Your task to perform on an android device: Go to privacy settings Image 0: 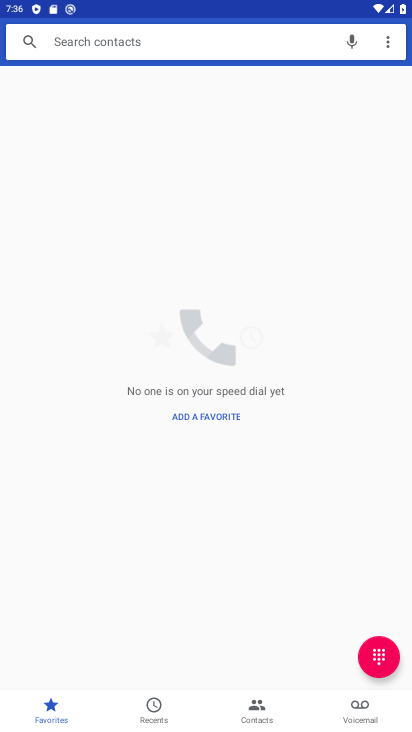
Step 0: press home button
Your task to perform on an android device: Go to privacy settings Image 1: 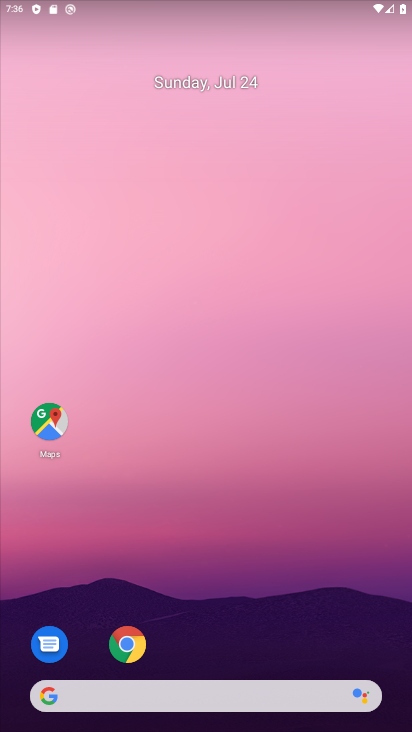
Step 1: drag from (217, 532) to (204, 0)
Your task to perform on an android device: Go to privacy settings Image 2: 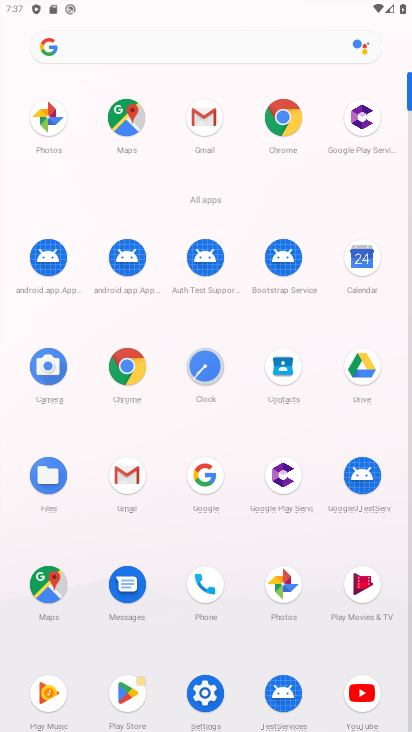
Step 2: click (204, 694)
Your task to perform on an android device: Go to privacy settings Image 3: 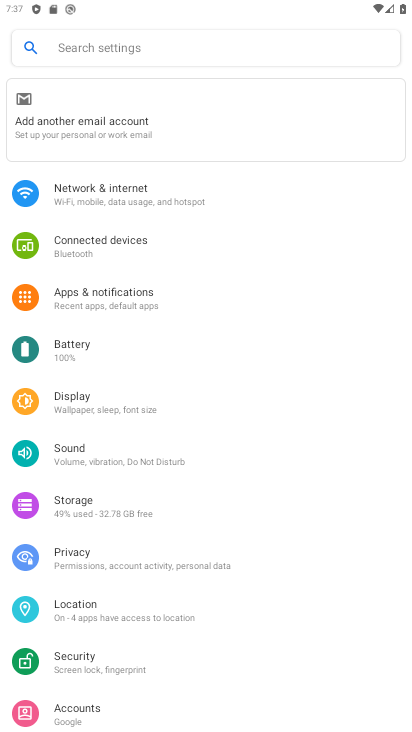
Step 3: click (89, 556)
Your task to perform on an android device: Go to privacy settings Image 4: 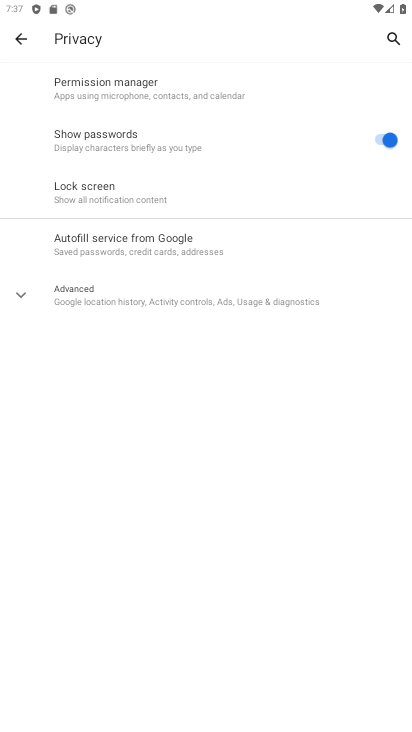
Step 4: task complete